Your task to perform on an android device: Look up the best rated video games on bestbuy.com Image 0: 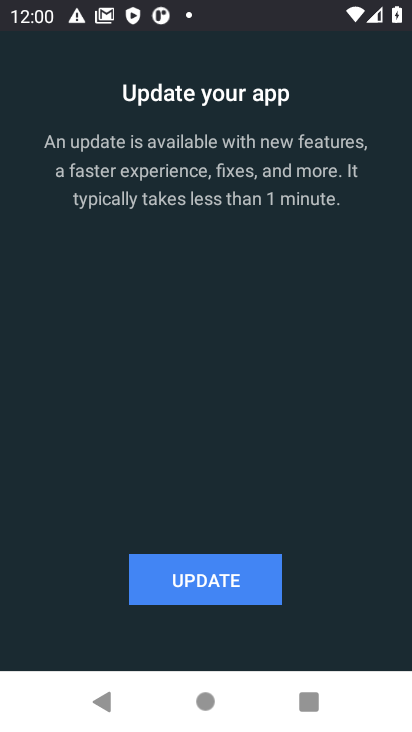
Step 0: press home button
Your task to perform on an android device: Look up the best rated video games on bestbuy.com Image 1: 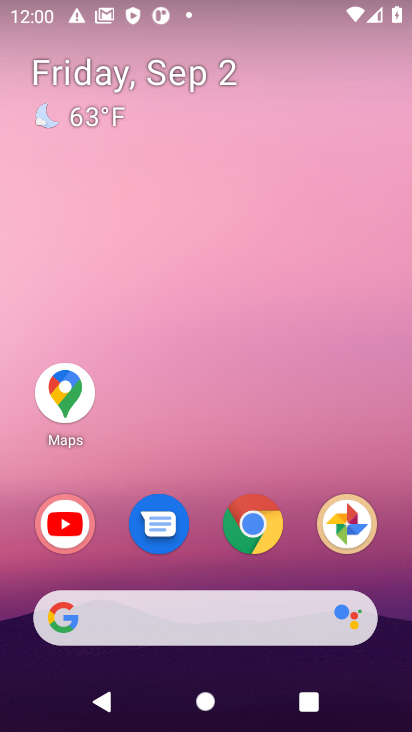
Step 1: click (260, 522)
Your task to perform on an android device: Look up the best rated video games on bestbuy.com Image 2: 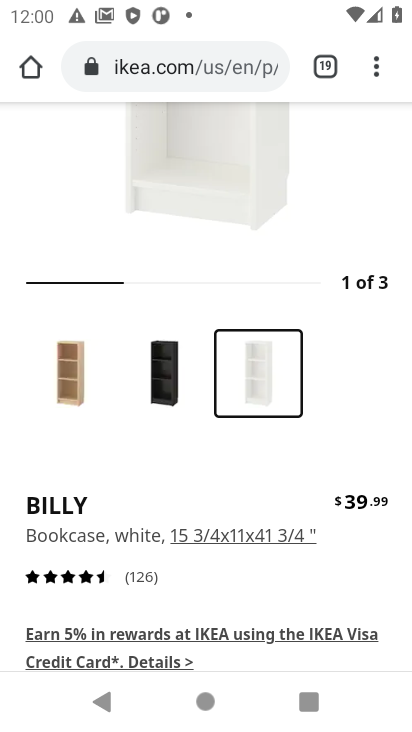
Step 2: click (331, 74)
Your task to perform on an android device: Look up the best rated video games on bestbuy.com Image 3: 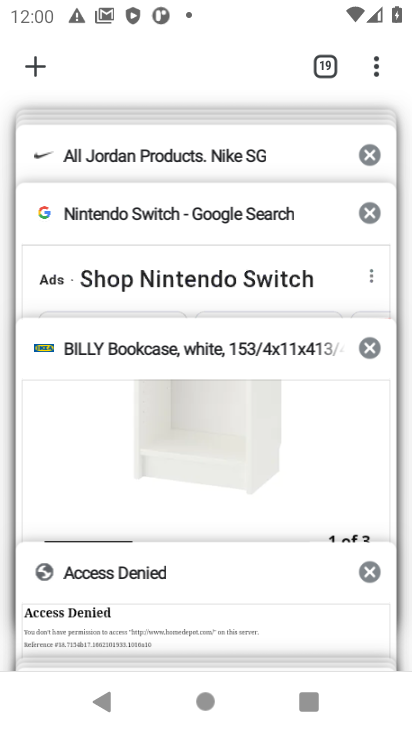
Step 3: drag from (231, 265) to (261, 571)
Your task to perform on an android device: Look up the best rated video games on bestbuy.com Image 4: 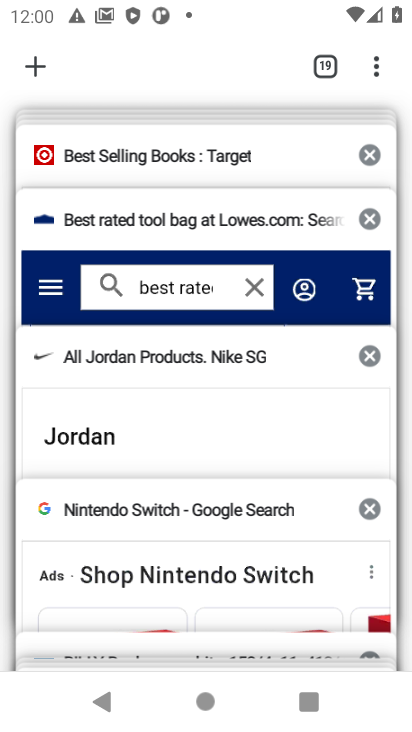
Step 4: drag from (166, 200) to (184, 355)
Your task to perform on an android device: Look up the best rated video games on bestbuy.com Image 5: 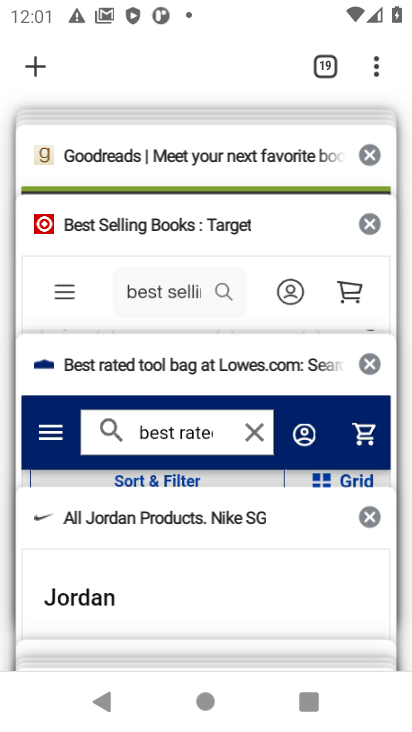
Step 5: drag from (225, 151) to (211, 564)
Your task to perform on an android device: Look up the best rated video games on bestbuy.com Image 6: 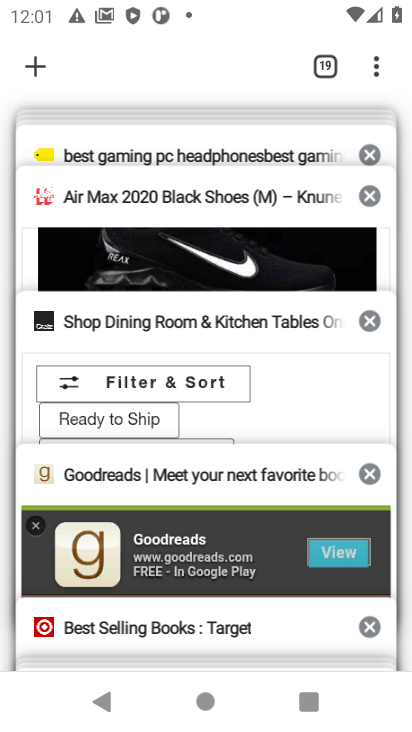
Step 6: drag from (217, 148) to (216, 497)
Your task to perform on an android device: Look up the best rated video games on bestbuy.com Image 7: 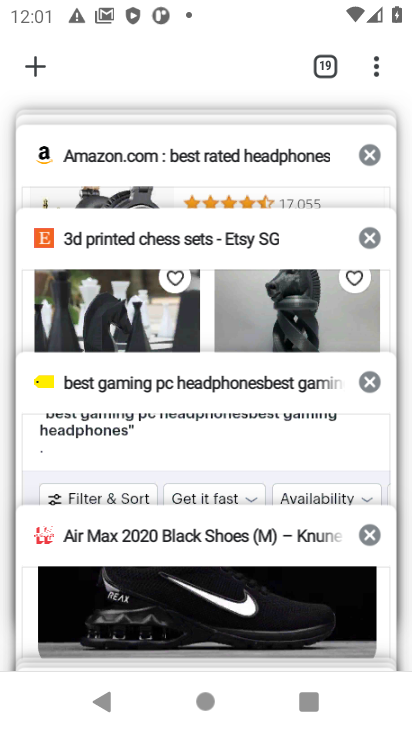
Step 7: drag from (209, 158) to (198, 551)
Your task to perform on an android device: Look up the best rated video games on bestbuy.com Image 8: 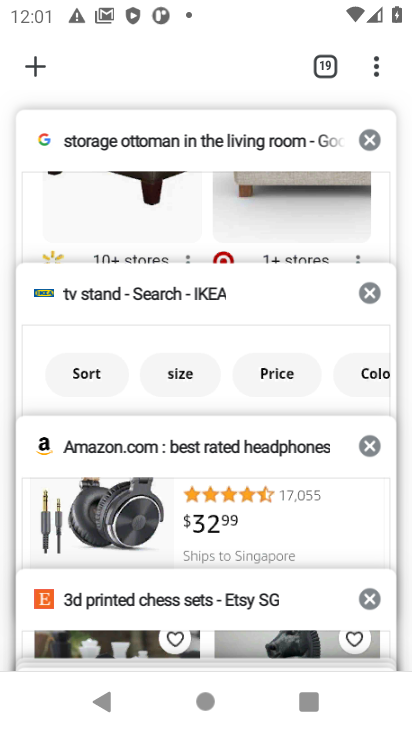
Step 8: drag from (152, 597) to (160, 269)
Your task to perform on an android device: Look up the best rated video games on bestbuy.com Image 9: 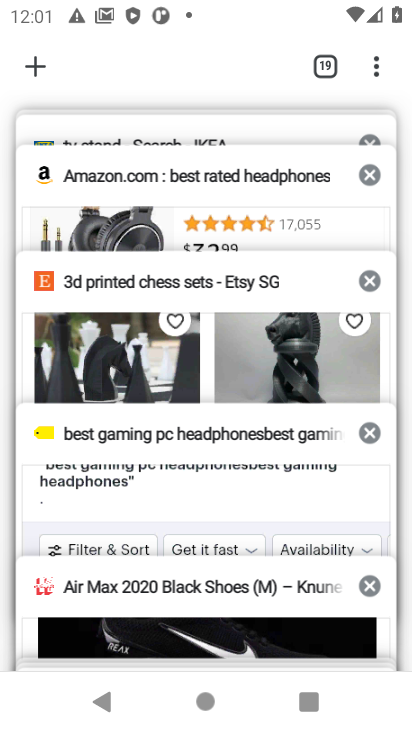
Step 9: click (177, 427)
Your task to perform on an android device: Look up the best rated video games on bestbuy.com Image 10: 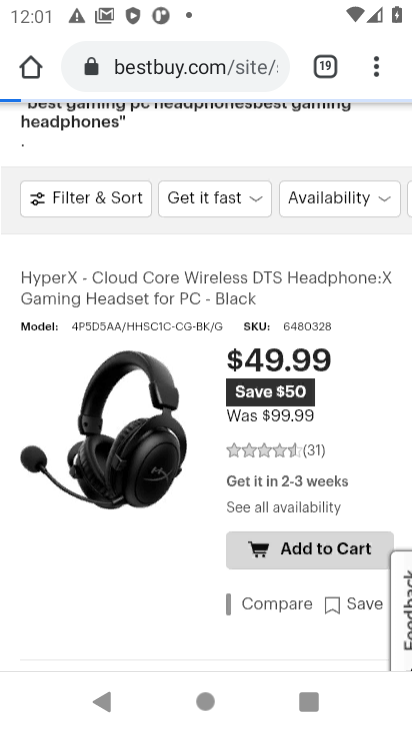
Step 10: drag from (148, 407) to (176, 530)
Your task to perform on an android device: Look up the best rated video games on bestbuy.com Image 11: 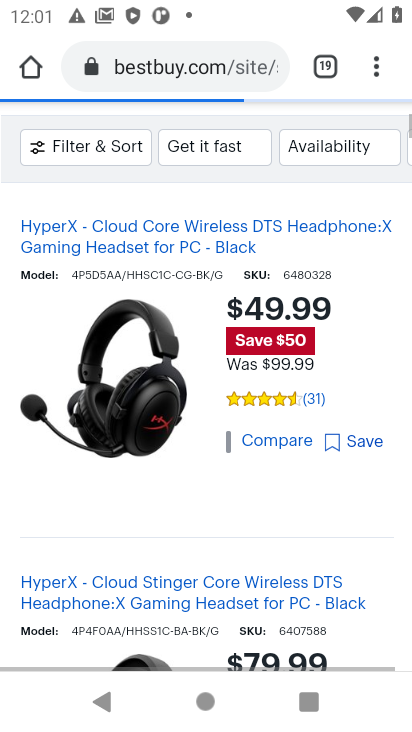
Step 11: drag from (328, 197) to (347, 467)
Your task to perform on an android device: Look up the best rated video games on bestbuy.com Image 12: 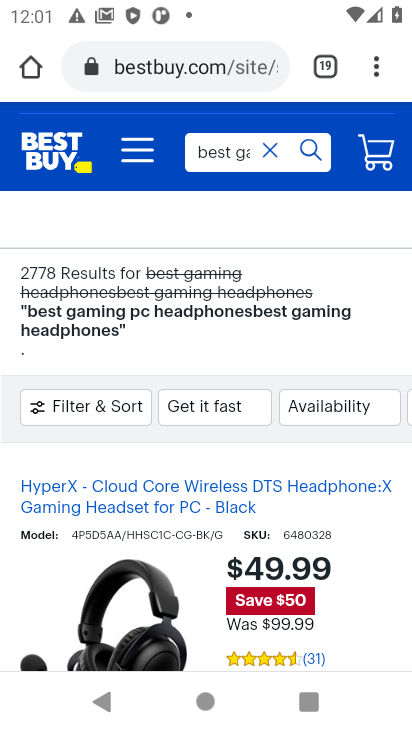
Step 12: click (270, 150)
Your task to perform on an android device: Look up the best rated video games on bestbuy.com Image 13: 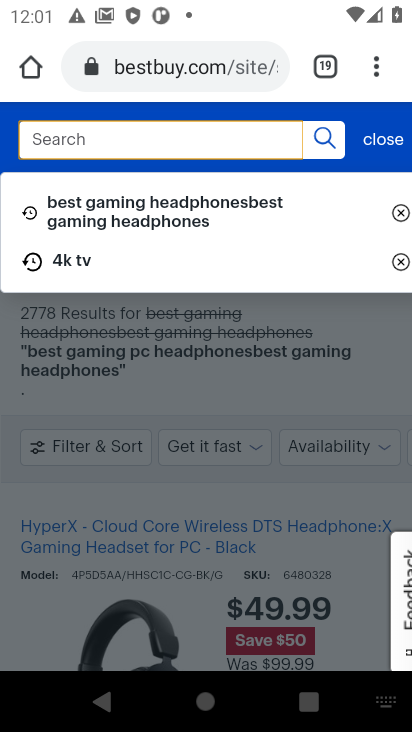
Step 13: type "best rated video games"
Your task to perform on an android device: Look up the best rated video games on bestbuy.com Image 14: 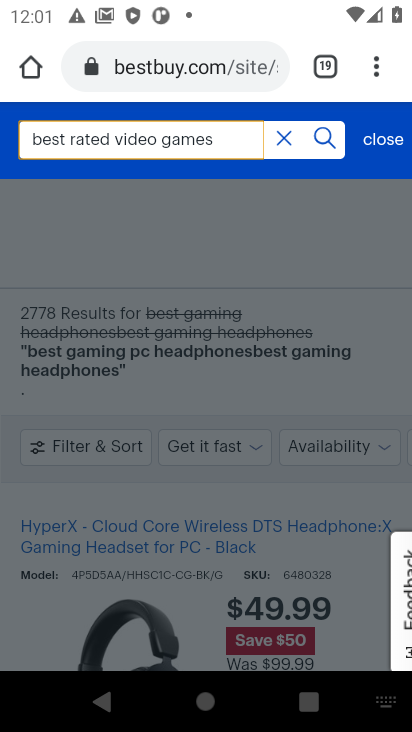
Step 14: click (327, 133)
Your task to perform on an android device: Look up the best rated video games on bestbuy.com Image 15: 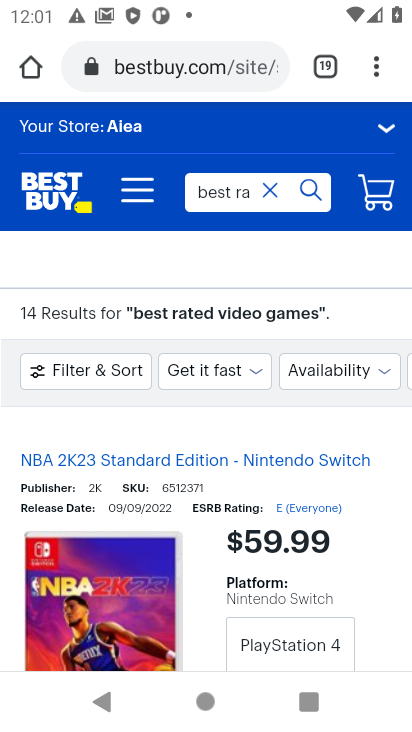
Step 15: task complete